Your task to perform on an android device: change the clock display to analog Image 0: 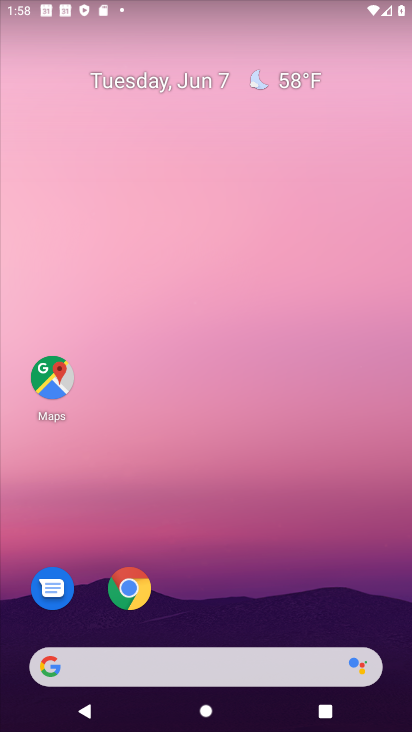
Step 0: drag from (305, 576) to (204, 258)
Your task to perform on an android device: change the clock display to analog Image 1: 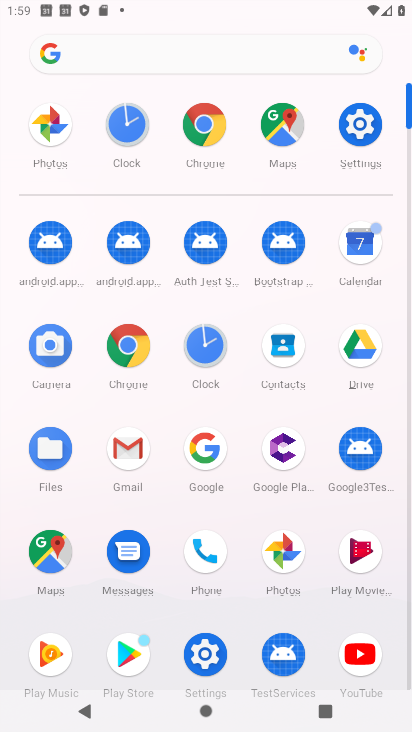
Step 1: click (208, 341)
Your task to perform on an android device: change the clock display to analog Image 2: 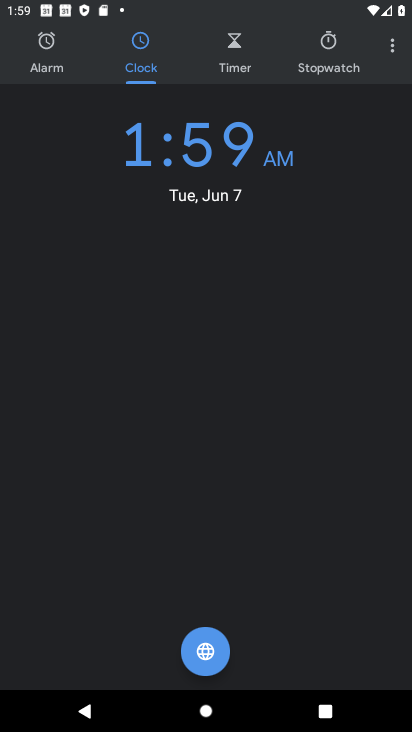
Step 2: task complete